Your task to perform on an android device: Turn off the flashlight Image 0: 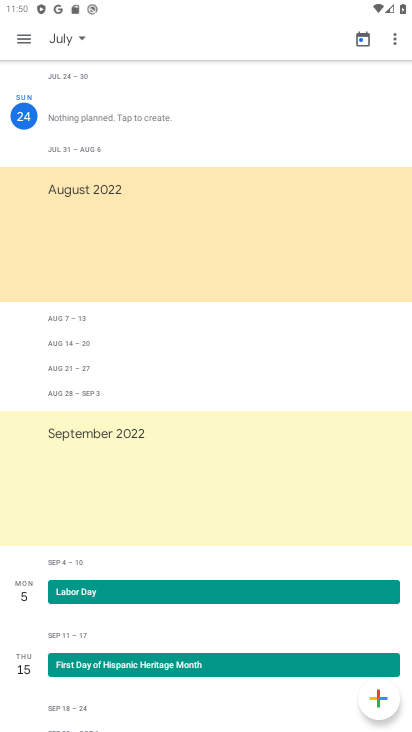
Step 0: press home button
Your task to perform on an android device: Turn off the flashlight Image 1: 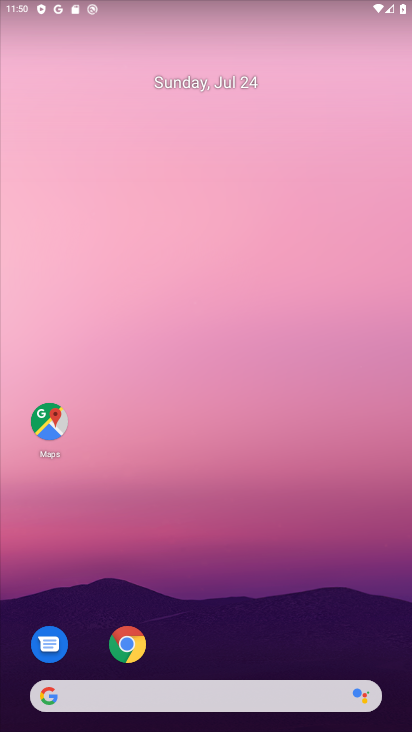
Step 1: drag from (204, 660) to (303, 1)
Your task to perform on an android device: Turn off the flashlight Image 2: 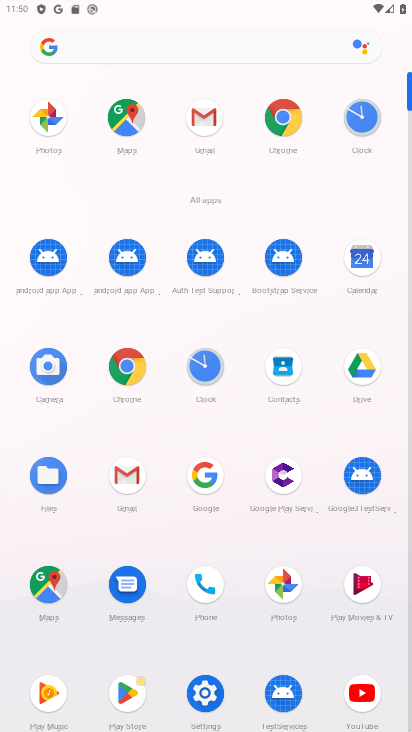
Step 2: click (197, 679)
Your task to perform on an android device: Turn off the flashlight Image 3: 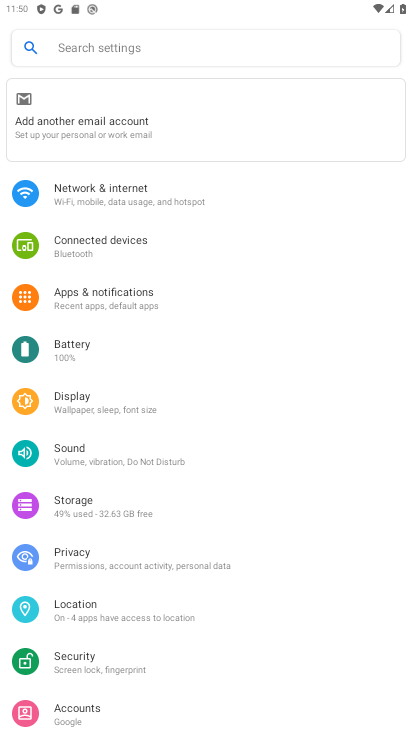
Step 3: task complete